Your task to perform on an android device: Show me popular games on the Play Store Image 0: 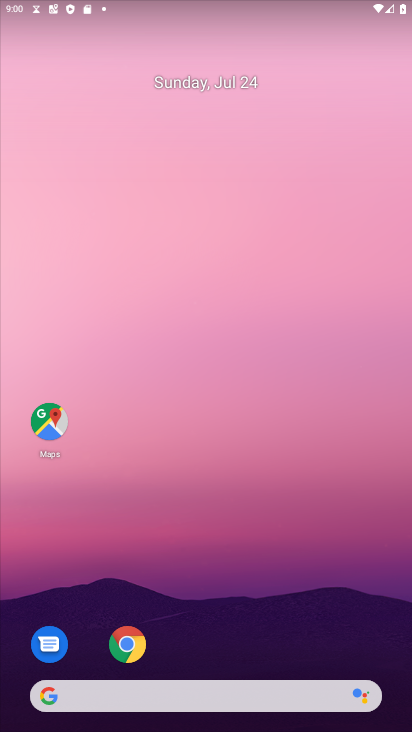
Step 0: drag from (240, 589) to (313, 16)
Your task to perform on an android device: Show me popular games on the Play Store Image 1: 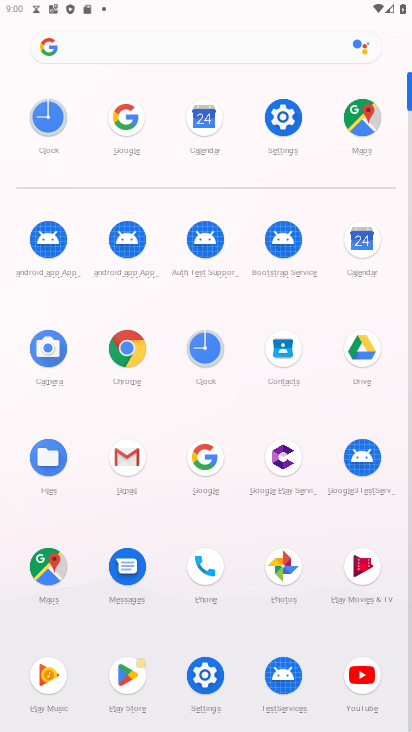
Step 1: drag from (219, 603) to (268, 194)
Your task to perform on an android device: Show me popular games on the Play Store Image 2: 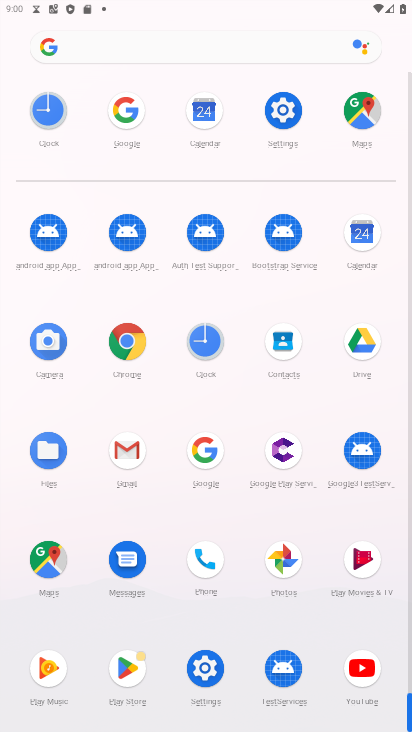
Step 2: click (126, 660)
Your task to perform on an android device: Show me popular games on the Play Store Image 3: 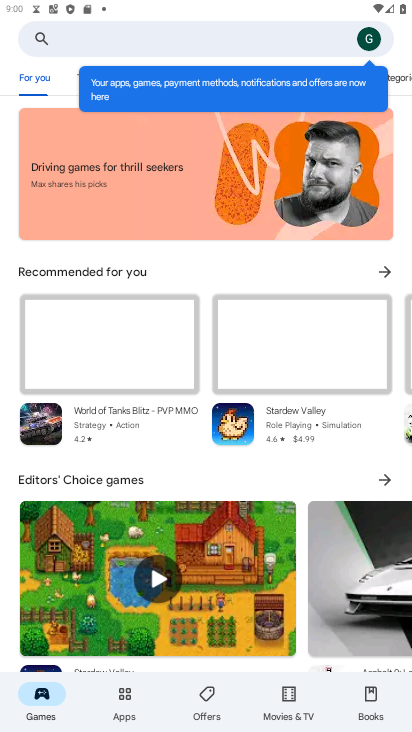
Step 3: click (148, 27)
Your task to perform on an android device: Show me popular games on the Play Store Image 4: 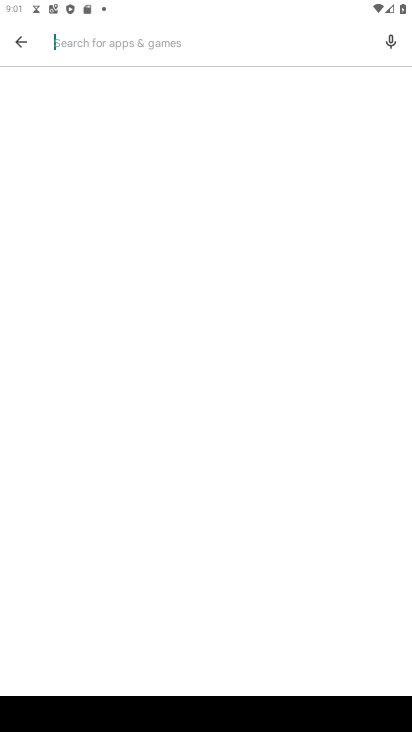
Step 4: type "popular games"
Your task to perform on an android device: Show me popular games on the Play Store Image 5: 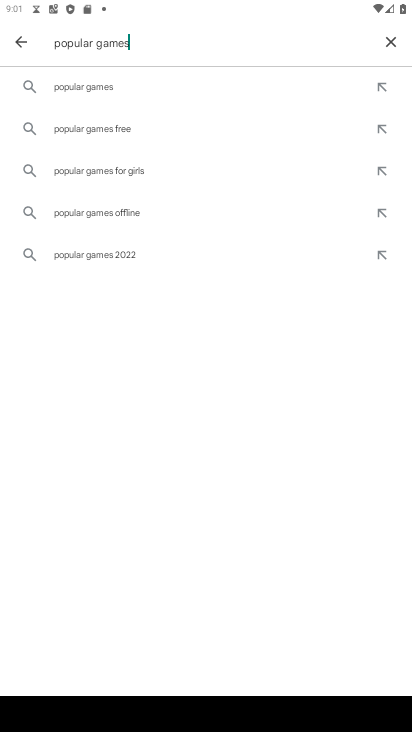
Step 5: click (64, 75)
Your task to perform on an android device: Show me popular games on the Play Store Image 6: 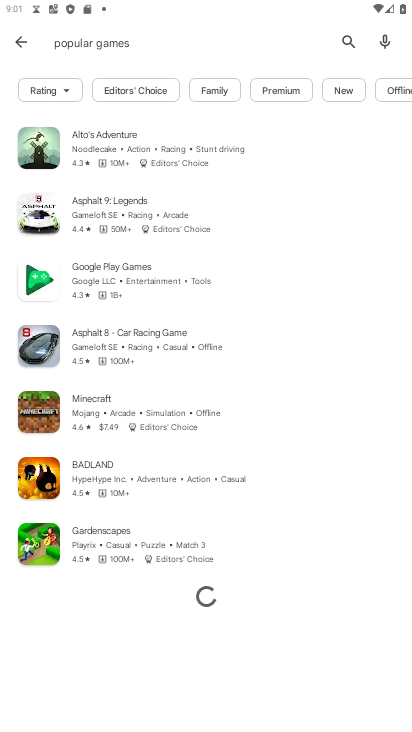
Step 6: task complete